Your task to perform on an android device: refresh tabs in the chrome app Image 0: 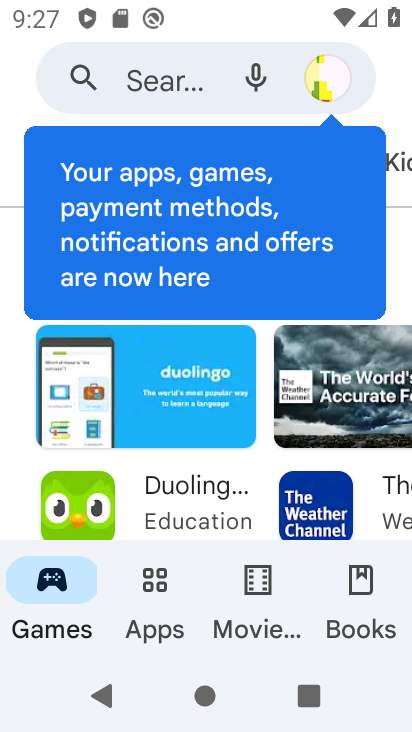
Step 0: press home button
Your task to perform on an android device: refresh tabs in the chrome app Image 1: 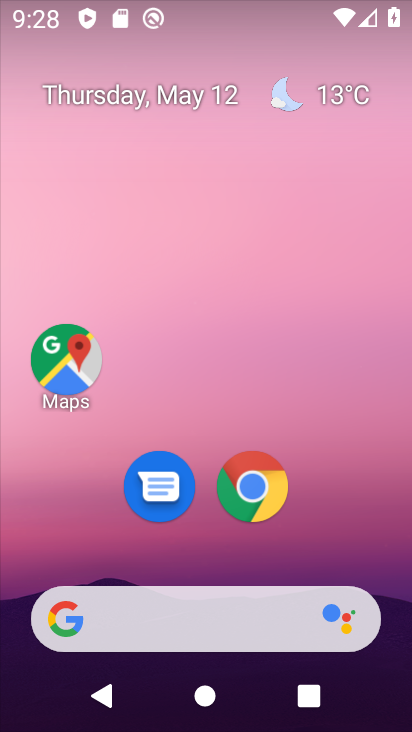
Step 1: click (274, 493)
Your task to perform on an android device: refresh tabs in the chrome app Image 2: 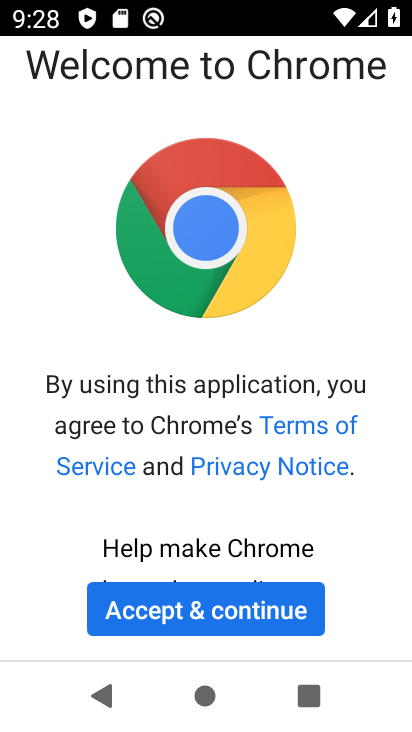
Step 2: click (295, 619)
Your task to perform on an android device: refresh tabs in the chrome app Image 3: 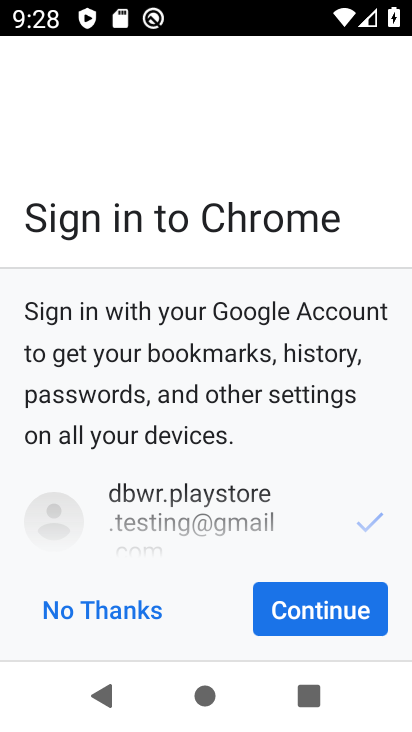
Step 3: click (295, 619)
Your task to perform on an android device: refresh tabs in the chrome app Image 4: 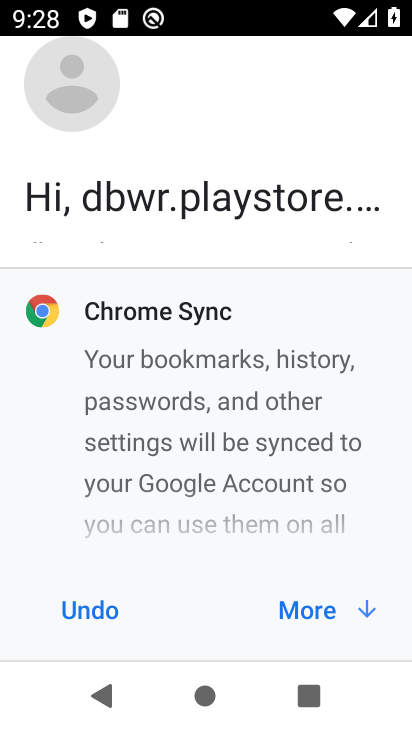
Step 4: click (295, 619)
Your task to perform on an android device: refresh tabs in the chrome app Image 5: 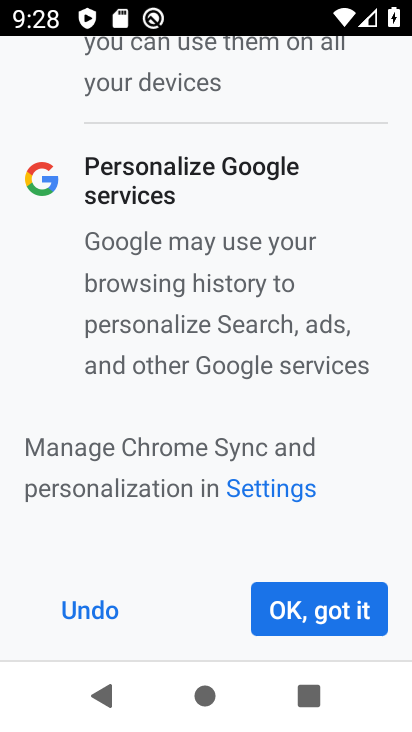
Step 5: click (295, 619)
Your task to perform on an android device: refresh tabs in the chrome app Image 6: 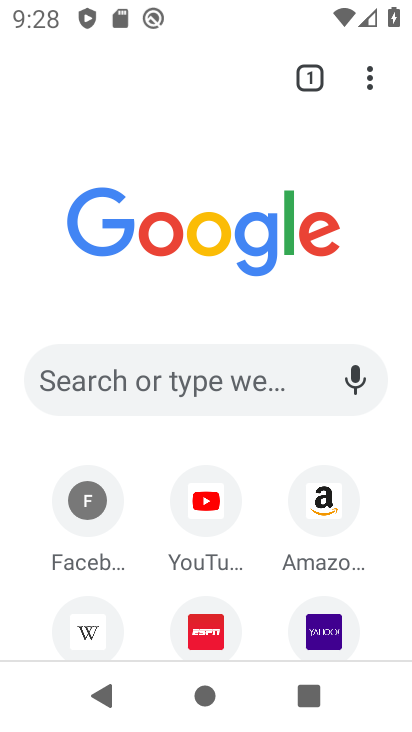
Step 6: click (368, 77)
Your task to perform on an android device: refresh tabs in the chrome app Image 7: 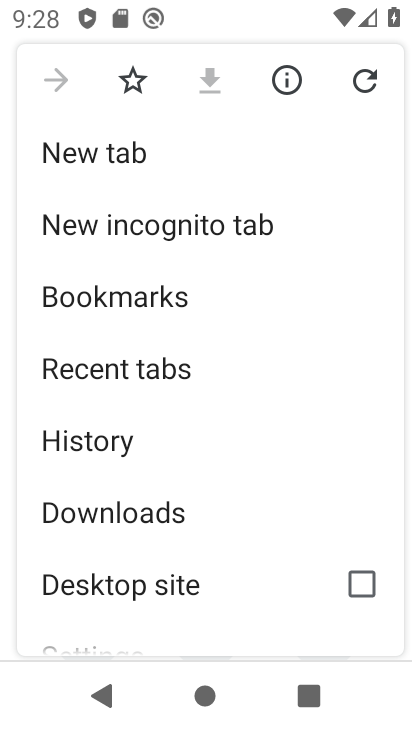
Step 7: click (364, 81)
Your task to perform on an android device: refresh tabs in the chrome app Image 8: 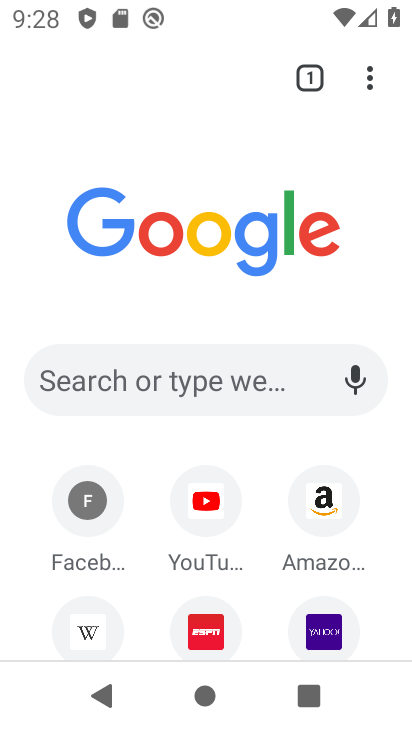
Step 8: task complete